Your task to perform on an android device: Open the calendar and show me this week's events? Image 0: 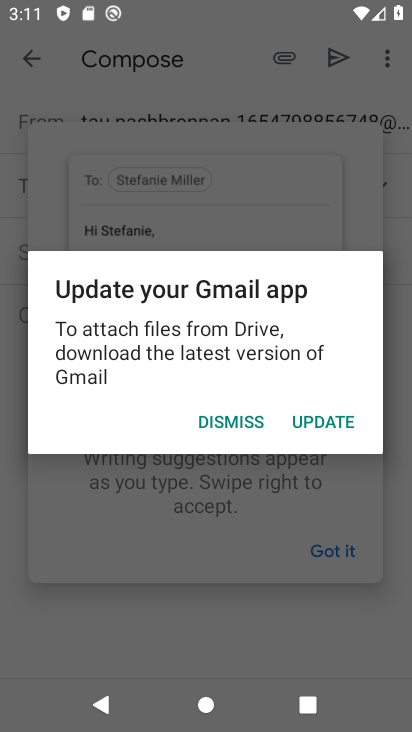
Step 0: press home button
Your task to perform on an android device: Open the calendar and show me this week's events? Image 1: 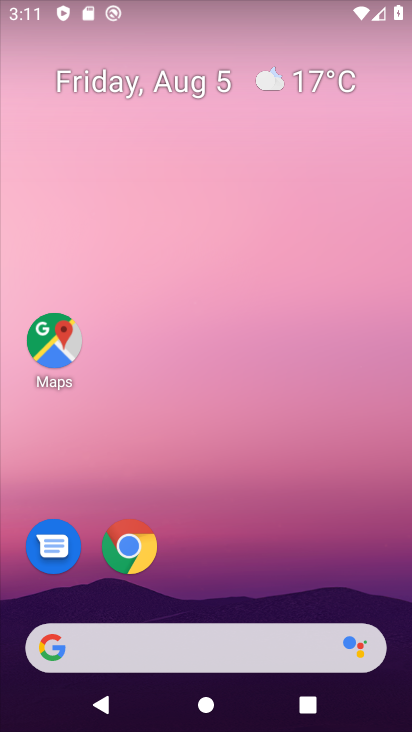
Step 1: drag from (304, 564) to (331, 143)
Your task to perform on an android device: Open the calendar and show me this week's events? Image 2: 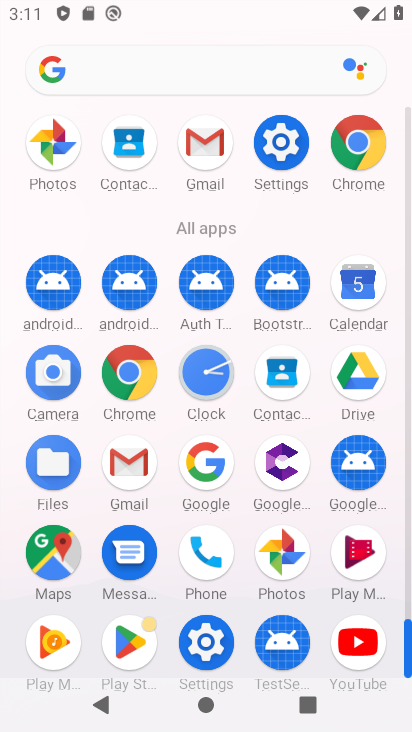
Step 2: click (363, 294)
Your task to perform on an android device: Open the calendar and show me this week's events? Image 3: 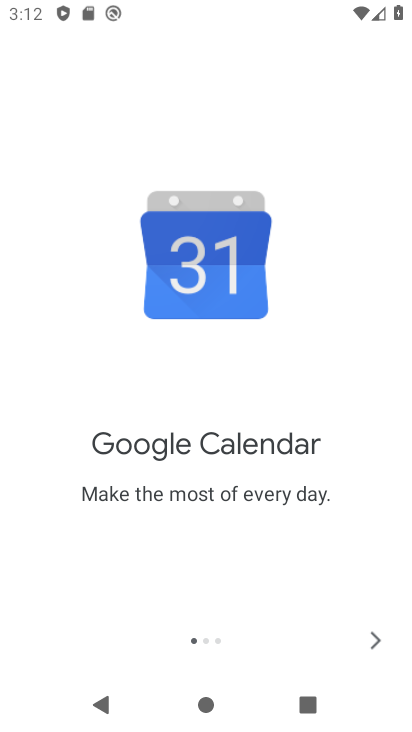
Step 3: click (371, 645)
Your task to perform on an android device: Open the calendar and show me this week's events? Image 4: 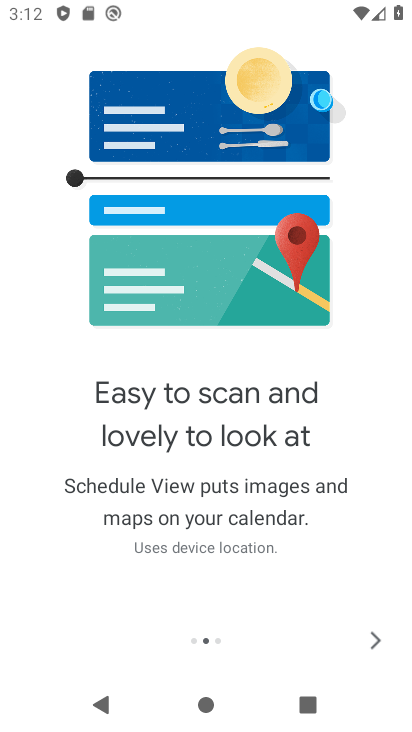
Step 4: click (371, 645)
Your task to perform on an android device: Open the calendar and show me this week's events? Image 5: 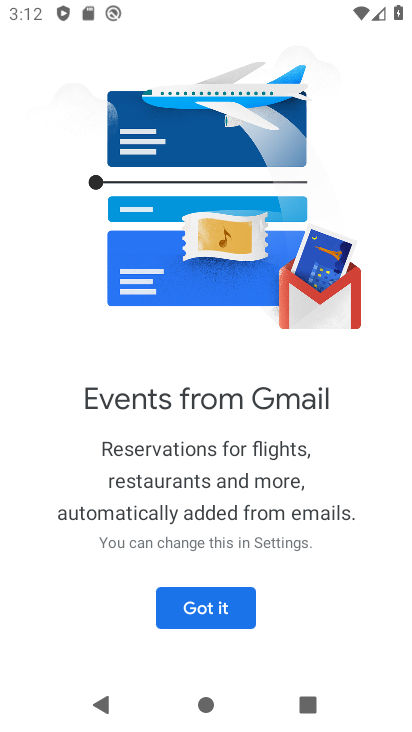
Step 5: click (234, 611)
Your task to perform on an android device: Open the calendar and show me this week's events? Image 6: 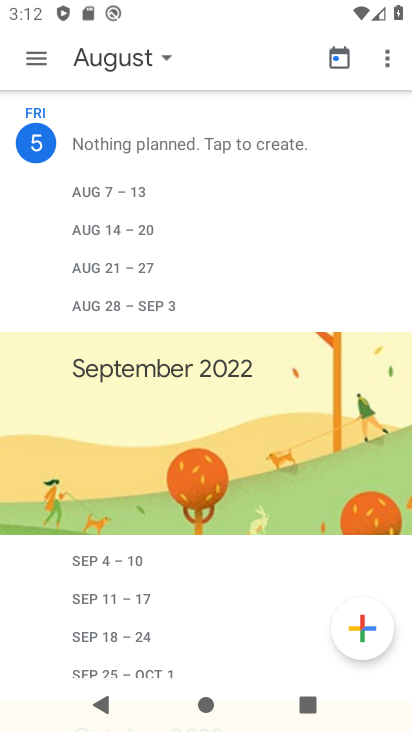
Step 6: task complete